Your task to perform on an android device: turn vacation reply on in the gmail app Image 0: 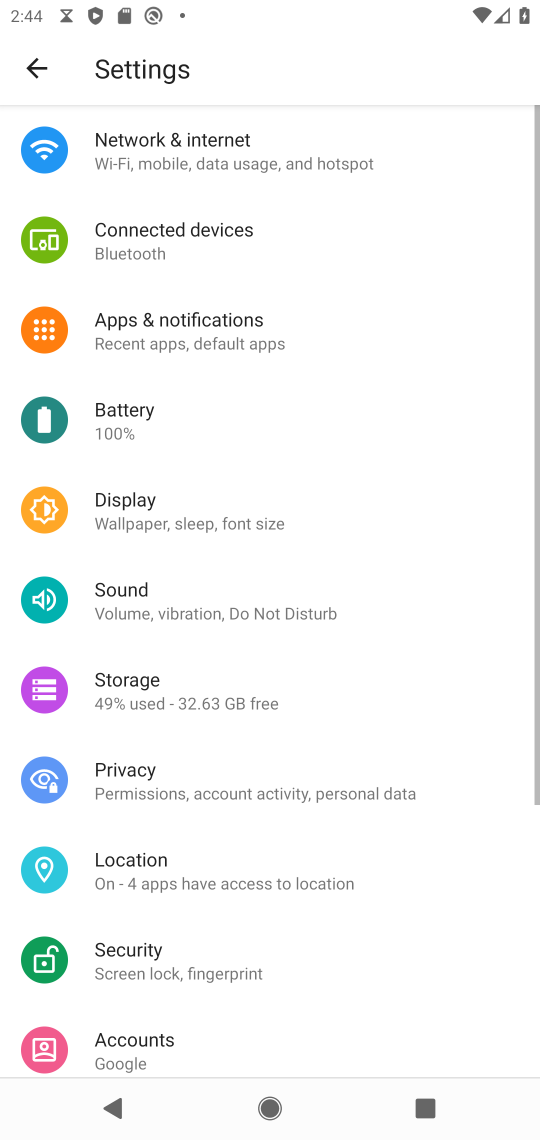
Step 0: press home button
Your task to perform on an android device: turn vacation reply on in the gmail app Image 1: 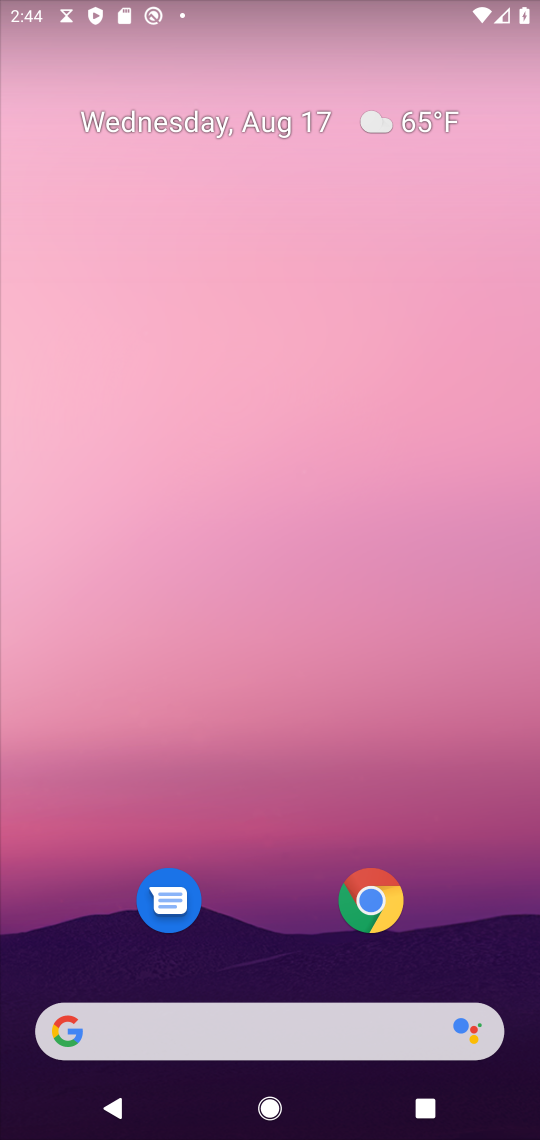
Step 1: drag from (242, 1029) to (458, 189)
Your task to perform on an android device: turn vacation reply on in the gmail app Image 2: 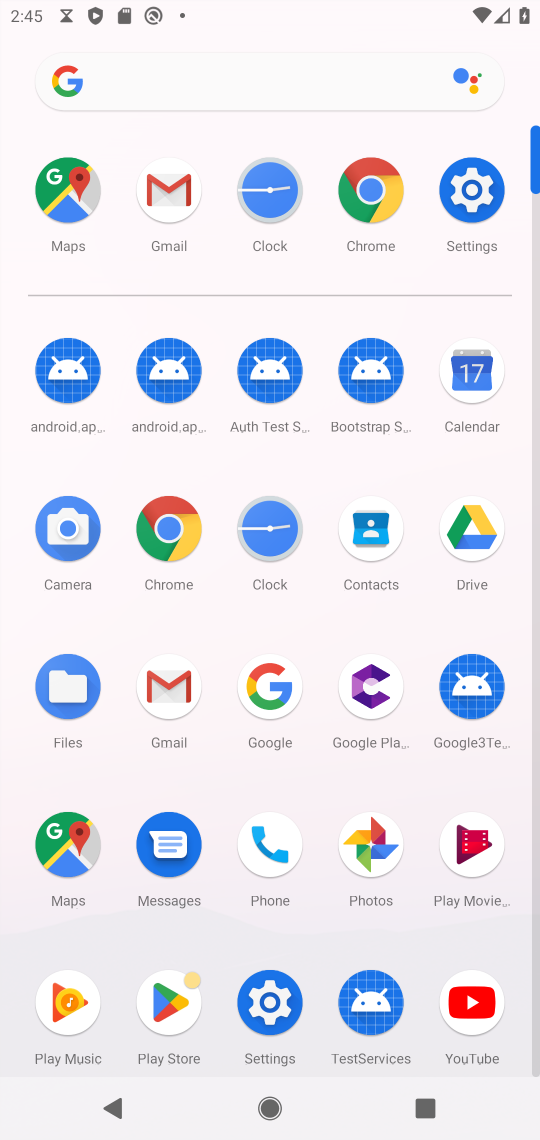
Step 2: click (154, 189)
Your task to perform on an android device: turn vacation reply on in the gmail app Image 3: 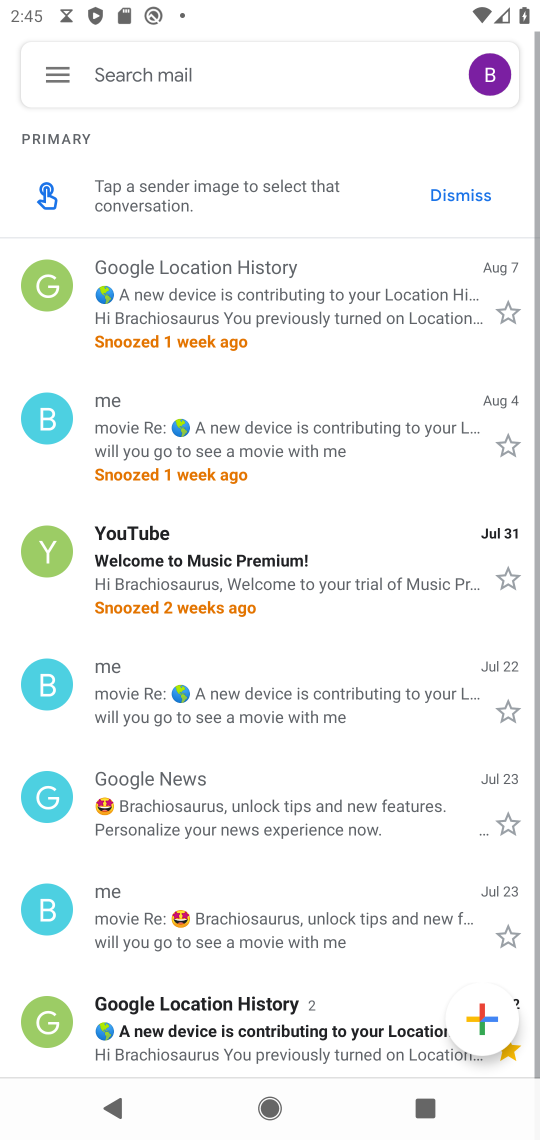
Step 3: click (68, 71)
Your task to perform on an android device: turn vacation reply on in the gmail app Image 4: 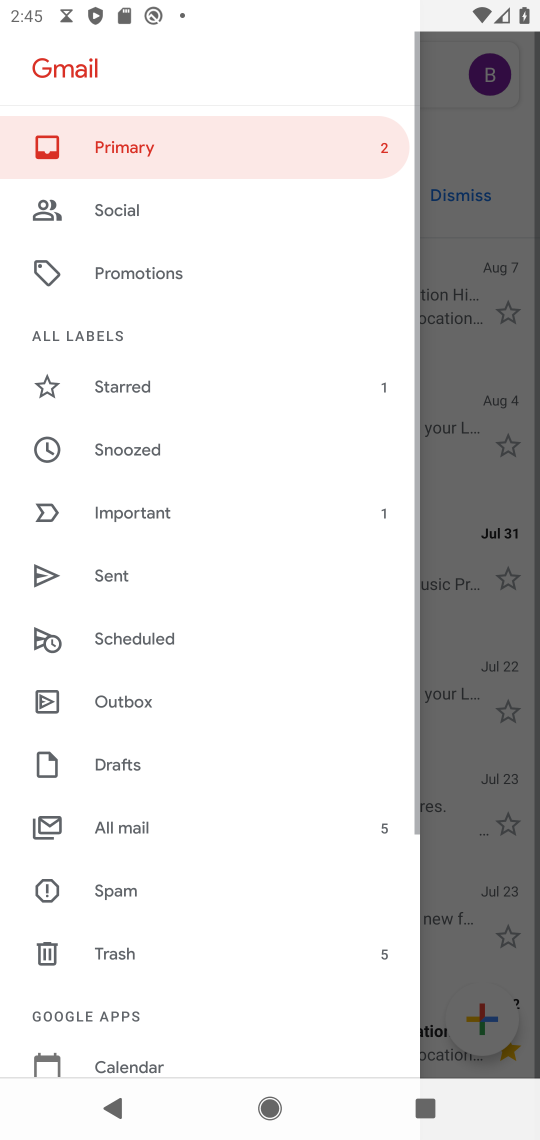
Step 4: drag from (261, 1008) to (335, 143)
Your task to perform on an android device: turn vacation reply on in the gmail app Image 5: 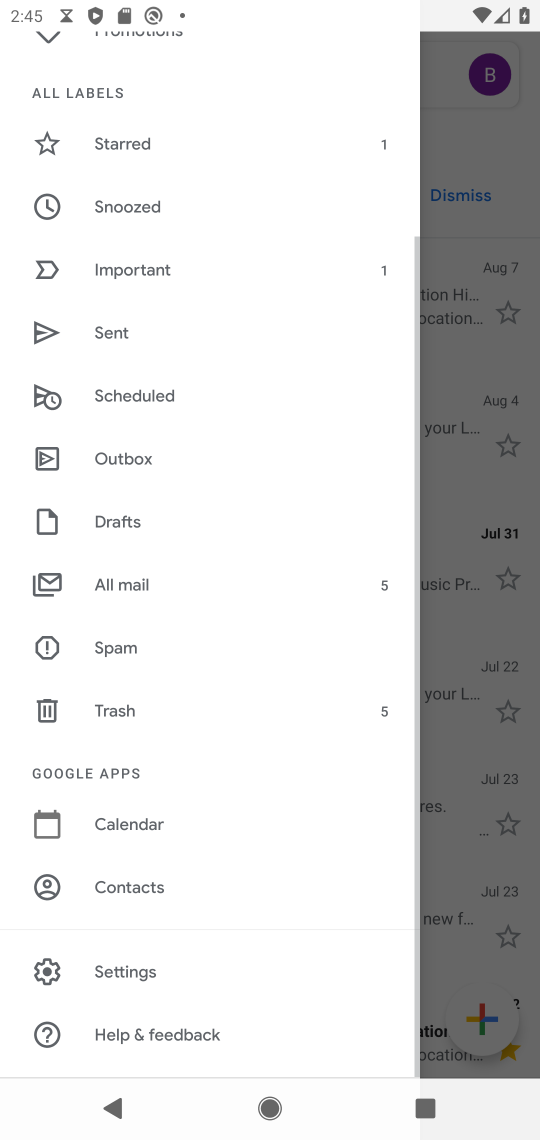
Step 5: click (145, 970)
Your task to perform on an android device: turn vacation reply on in the gmail app Image 6: 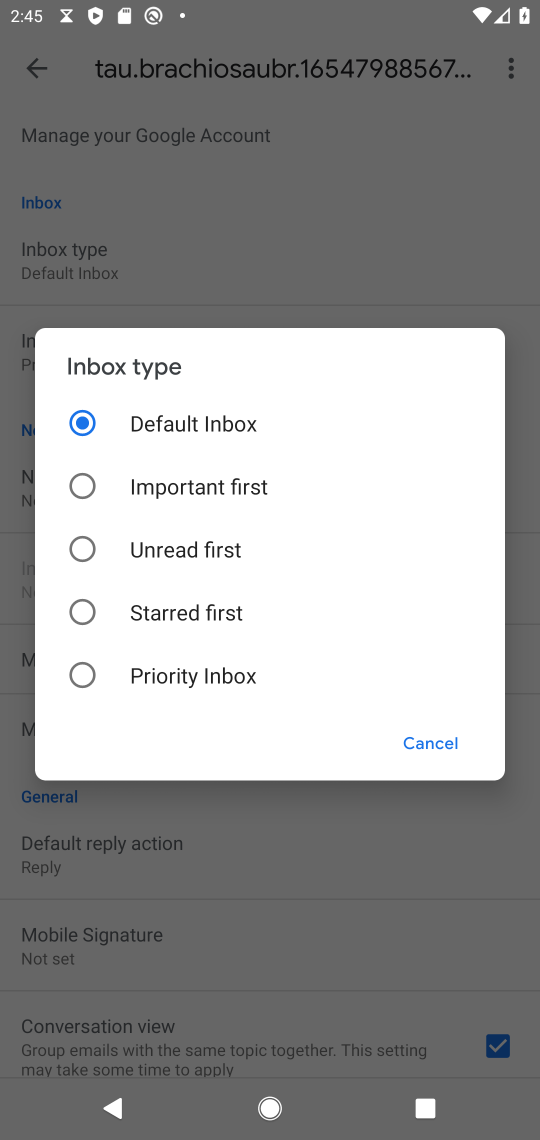
Step 6: click (459, 747)
Your task to perform on an android device: turn vacation reply on in the gmail app Image 7: 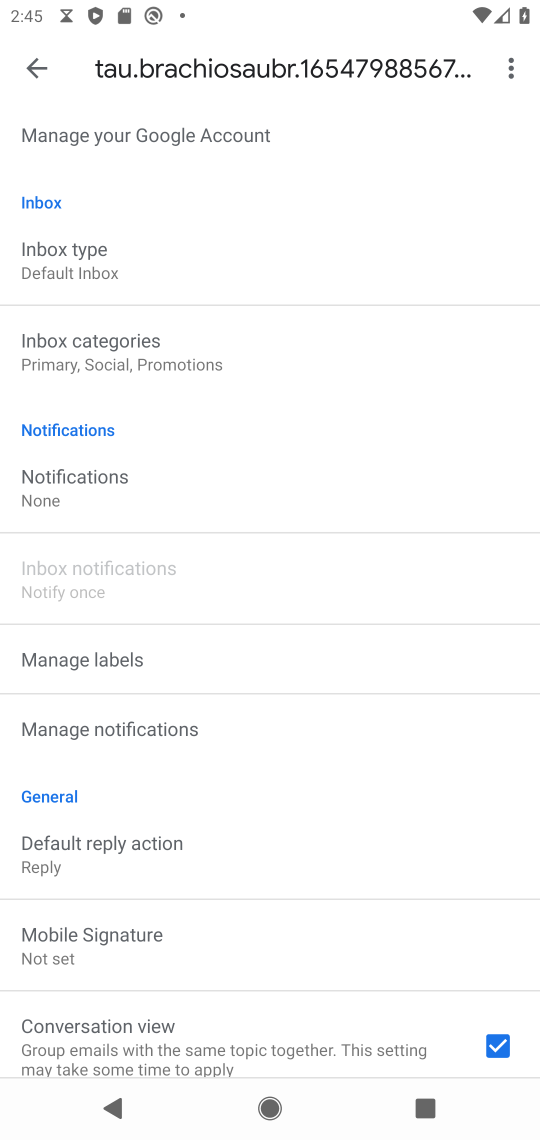
Step 7: drag from (303, 973) to (537, 213)
Your task to perform on an android device: turn vacation reply on in the gmail app Image 8: 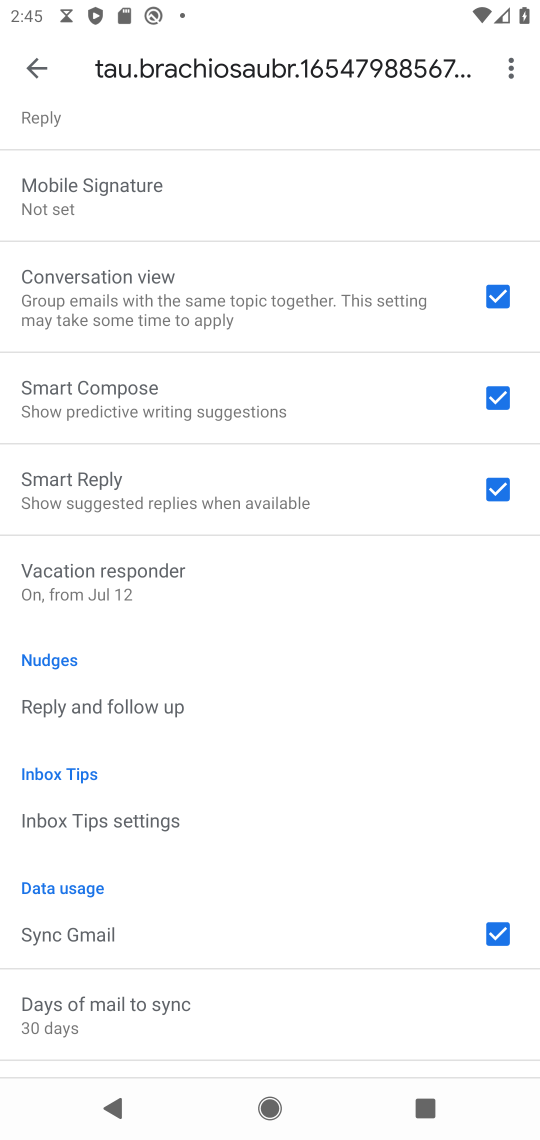
Step 8: click (115, 582)
Your task to perform on an android device: turn vacation reply on in the gmail app Image 9: 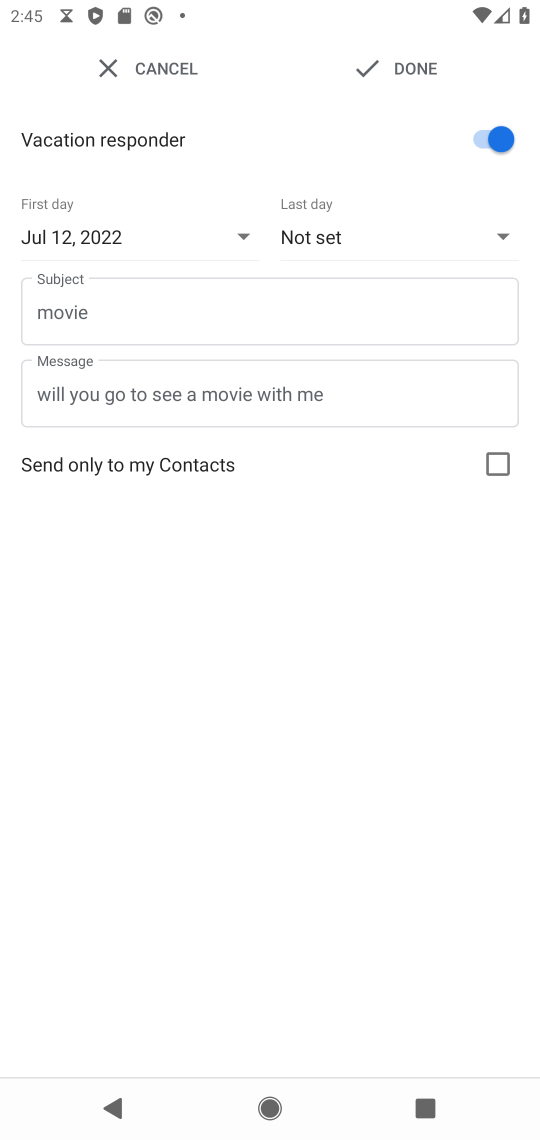
Step 9: task complete